Your task to perform on an android device: choose inbox layout in the gmail app Image 0: 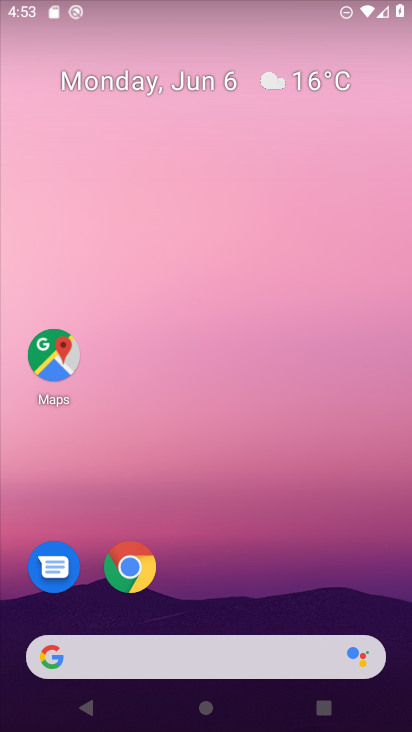
Step 0: drag from (295, 627) to (267, 87)
Your task to perform on an android device: choose inbox layout in the gmail app Image 1: 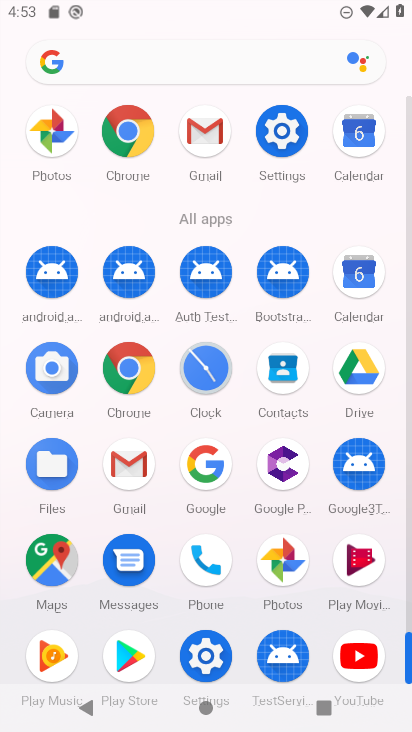
Step 1: click (129, 466)
Your task to perform on an android device: choose inbox layout in the gmail app Image 2: 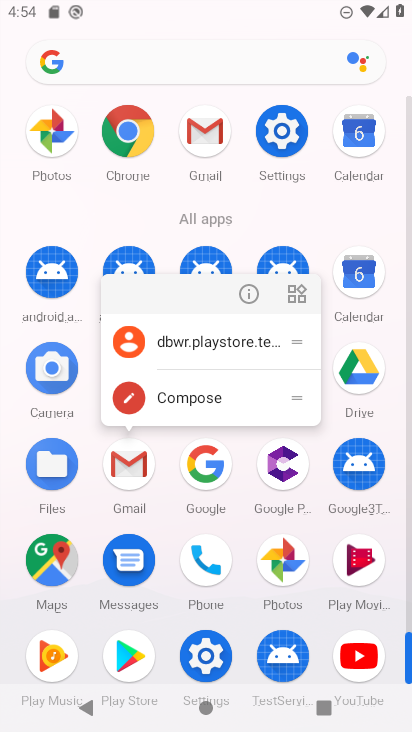
Step 2: click (120, 454)
Your task to perform on an android device: choose inbox layout in the gmail app Image 3: 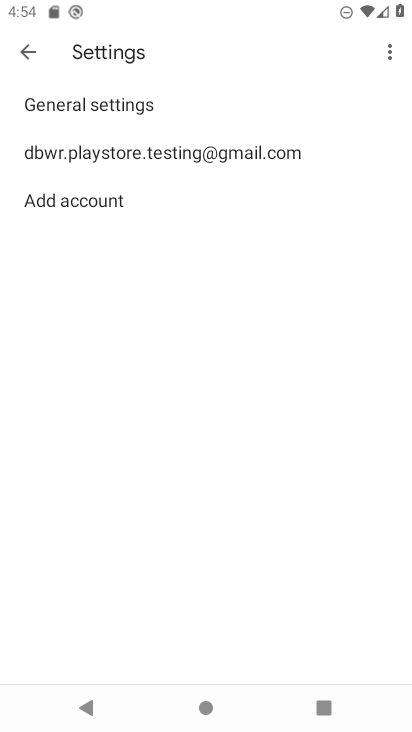
Step 3: click (115, 171)
Your task to perform on an android device: choose inbox layout in the gmail app Image 4: 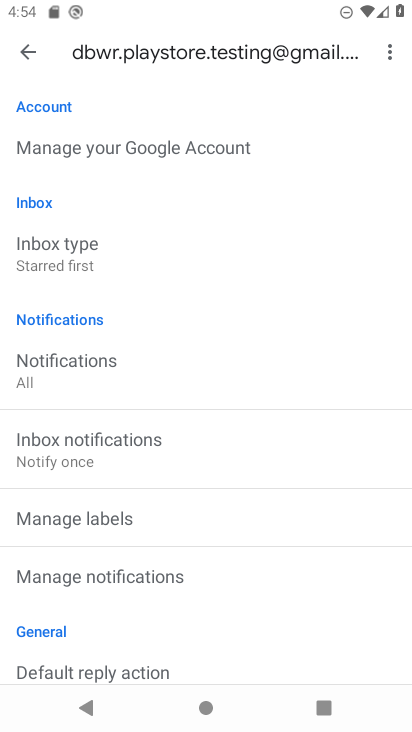
Step 4: click (67, 262)
Your task to perform on an android device: choose inbox layout in the gmail app Image 5: 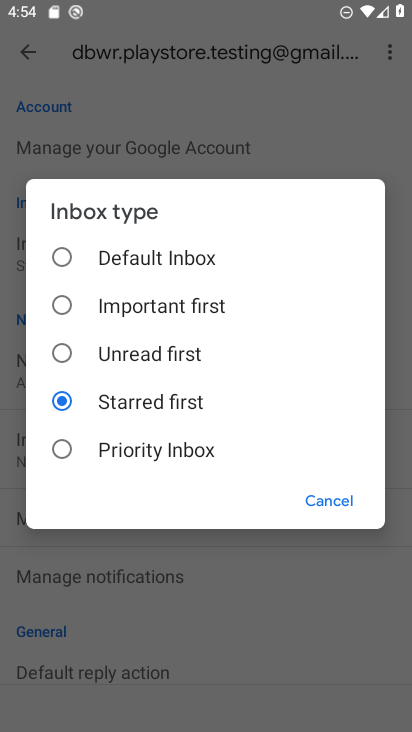
Step 5: click (62, 253)
Your task to perform on an android device: choose inbox layout in the gmail app Image 6: 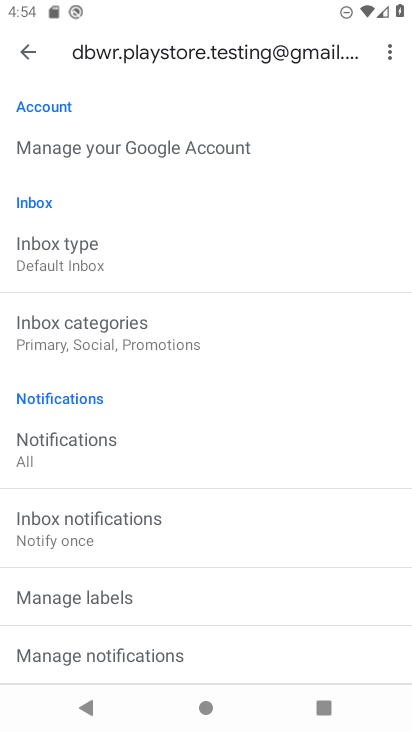
Step 6: task complete